Your task to perform on an android device: open device folders in google photos Image 0: 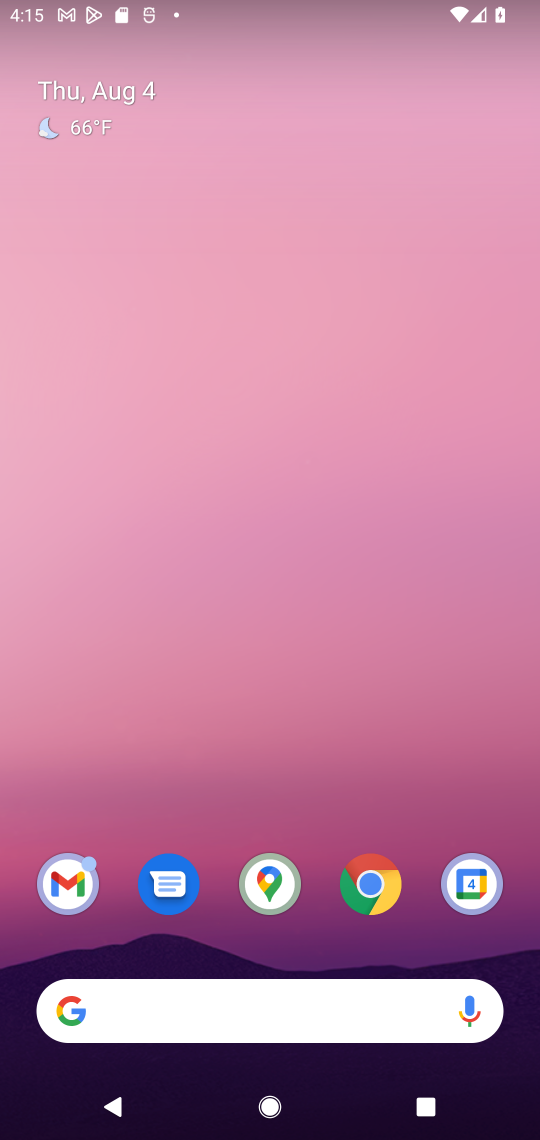
Step 0: click (286, 907)
Your task to perform on an android device: open device folders in google photos Image 1: 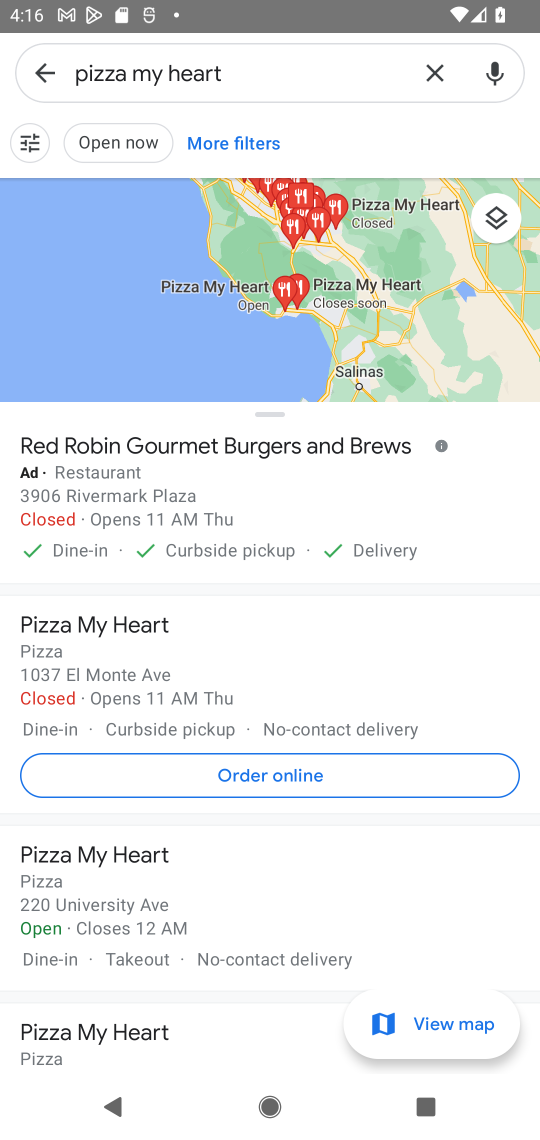
Step 1: click (43, 77)
Your task to perform on an android device: open device folders in google photos Image 2: 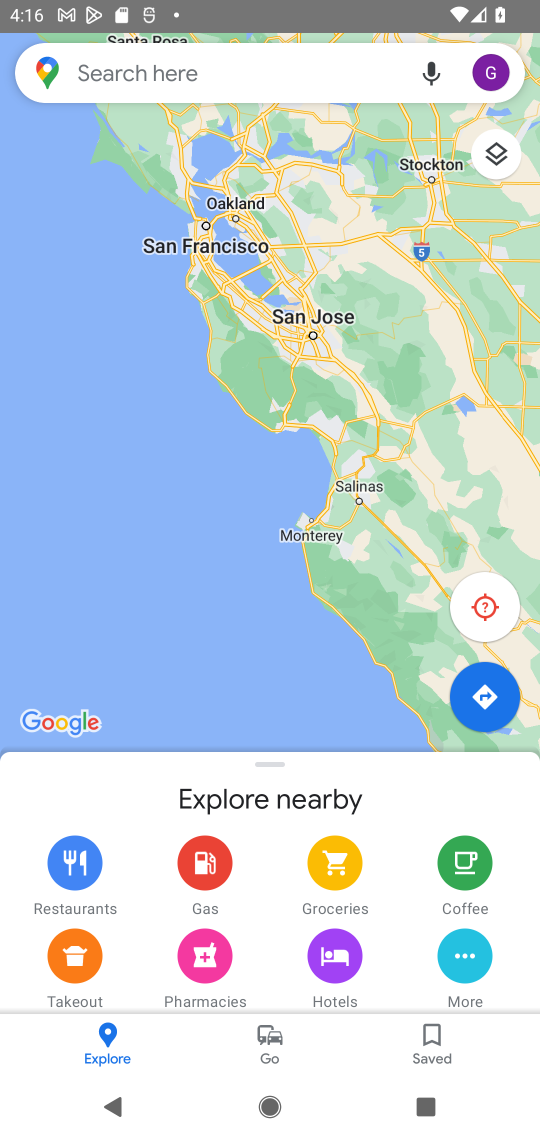
Step 2: click (43, 77)
Your task to perform on an android device: open device folders in google photos Image 3: 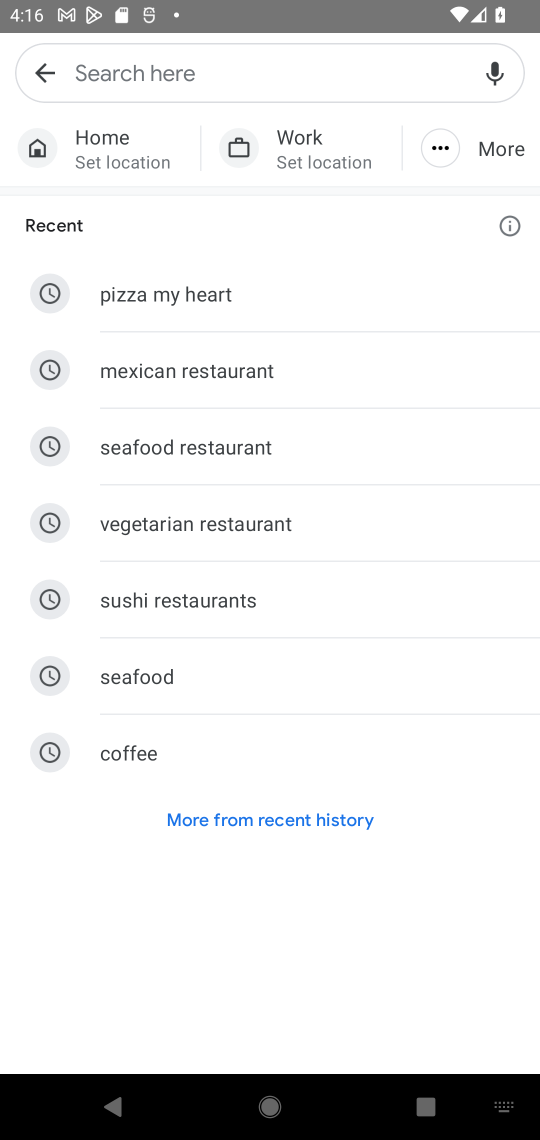
Step 3: click (42, 87)
Your task to perform on an android device: open device folders in google photos Image 4: 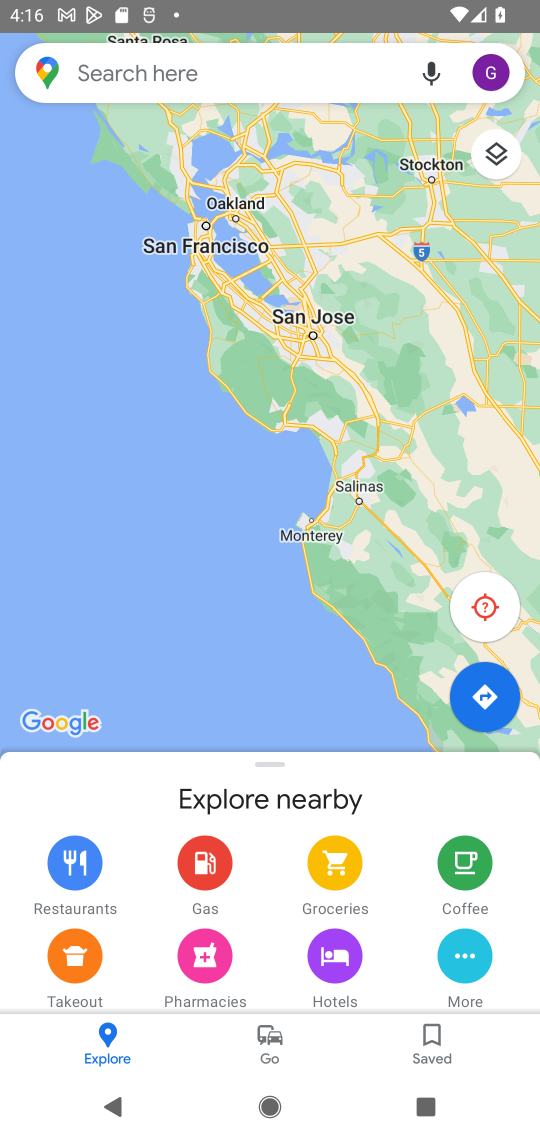
Step 4: click (473, 73)
Your task to perform on an android device: open device folders in google photos Image 5: 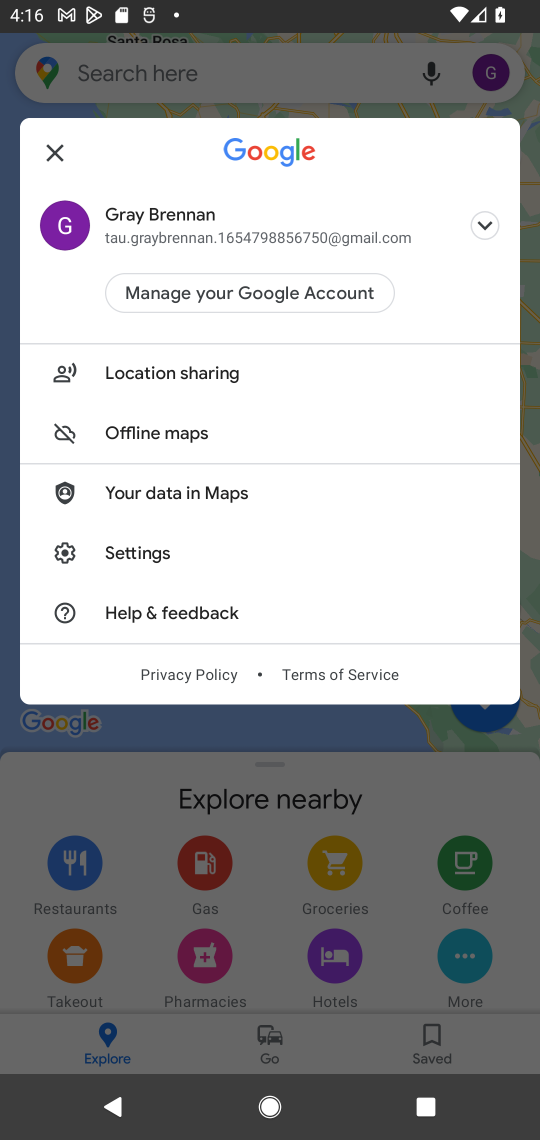
Step 5: click (167, 562)
Your task to perform on an android device: open device folders in google photos Image 6: 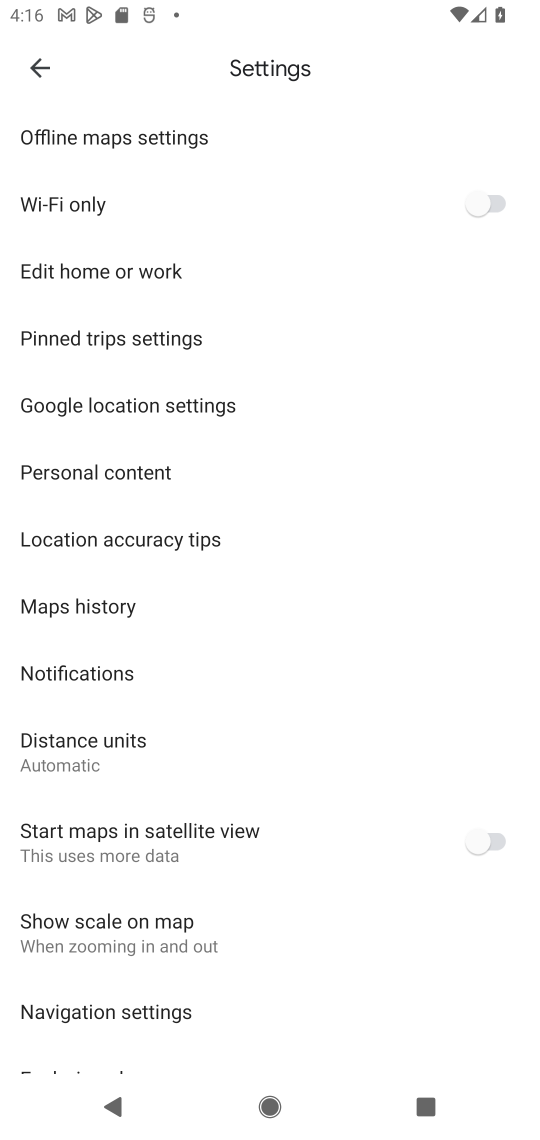
Step 6: task complete